Your task to perform on an android device: Open accessibility settings Image 0: 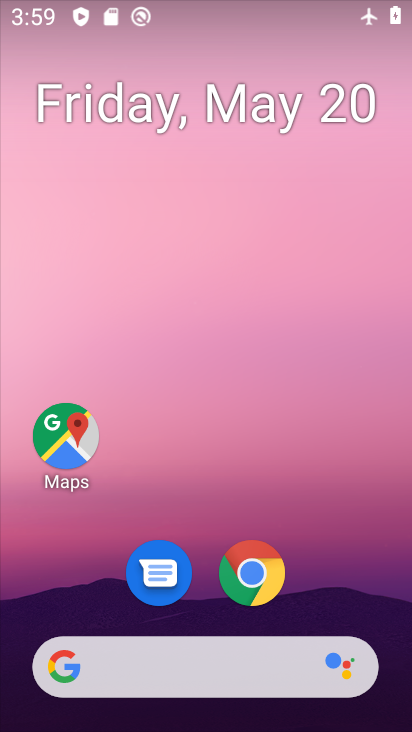
Step 0: drag from (327, 550) to (240, 145)
Your task to perform on an android device: Open accessibility settings Image 1: 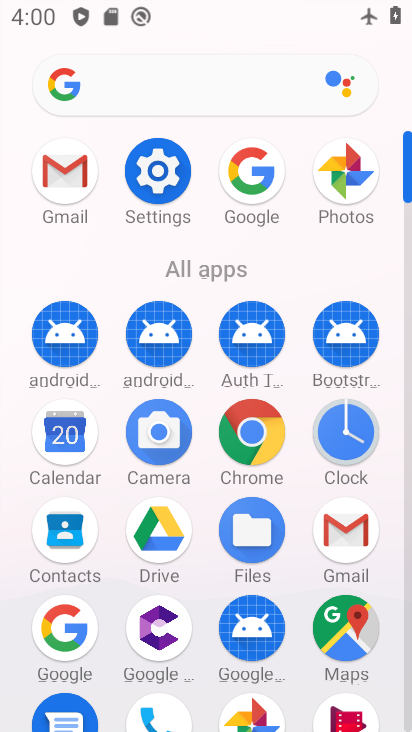
Step 1: click (170, 185)
Your task to perform on an android device: Open accessibility settings Image 2: 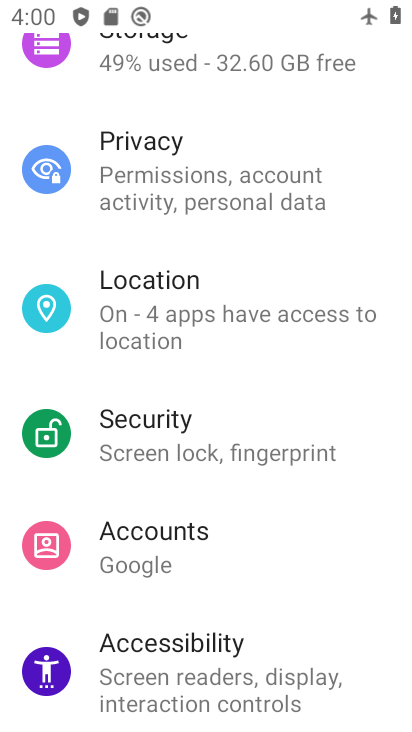
Step 2: click (242, 649)
Your task to perform on an android device: Open accessibility settings Image 3: 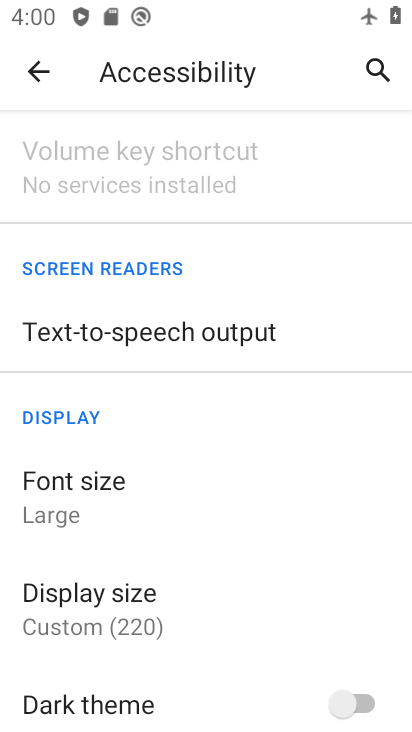
Step 3: task complete